Your task to perform on an android device: Open Android settings Image 0: 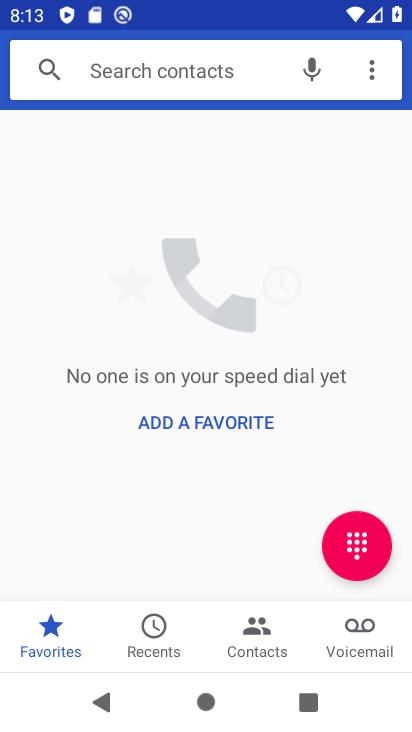
Step 0: press home button
Your task to perform on an android device: Open Android settings Image 1: 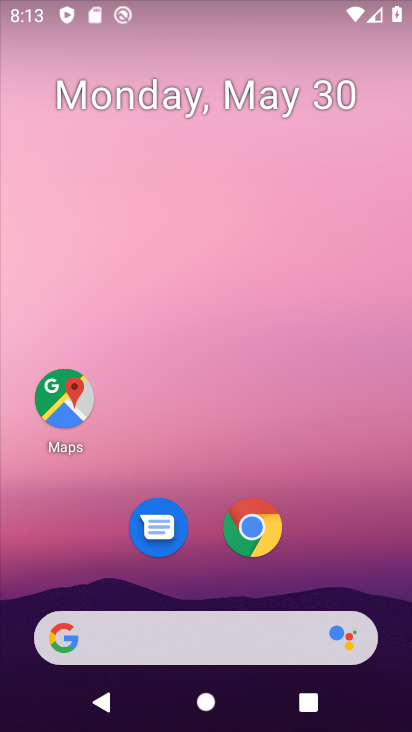
Step 1: drag from (199, 438) to (196, 174)
Your task to perform on an android device: Open Android settings Image 2: 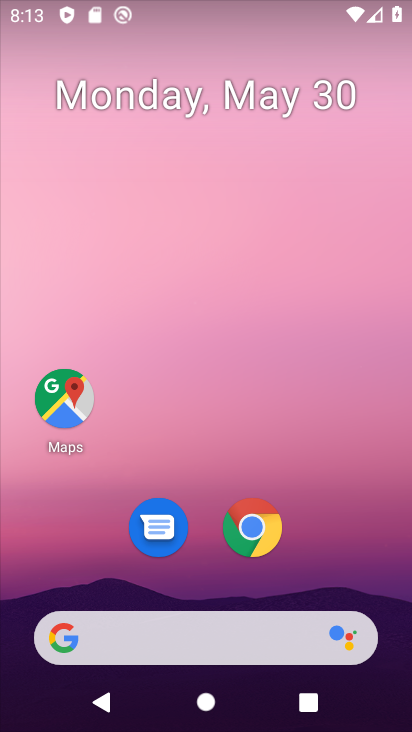
Step 2: drag from (195, 616) to (194, 228)
Your task to perform on an android device: Open Android settings Image 3: 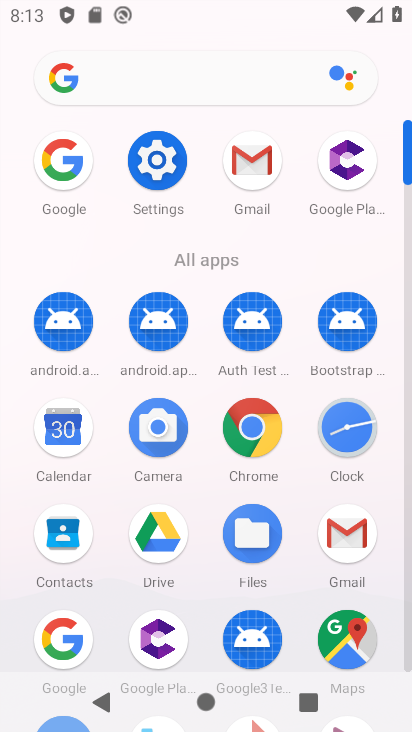
Step 3: click (137, 169)
Your task to perform on an android device: Open Android settings Image 4: 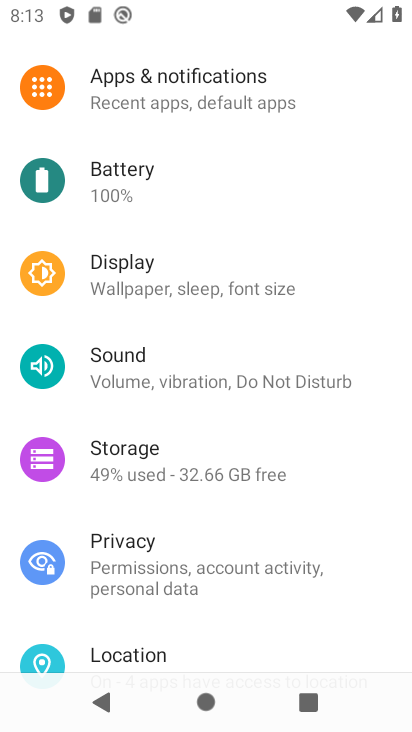
Step 4: task complete